Your task to perform on an android device: Clear the shopping cart on target. Add logitech g933 to the cart on target, then select checkout. Image 0: 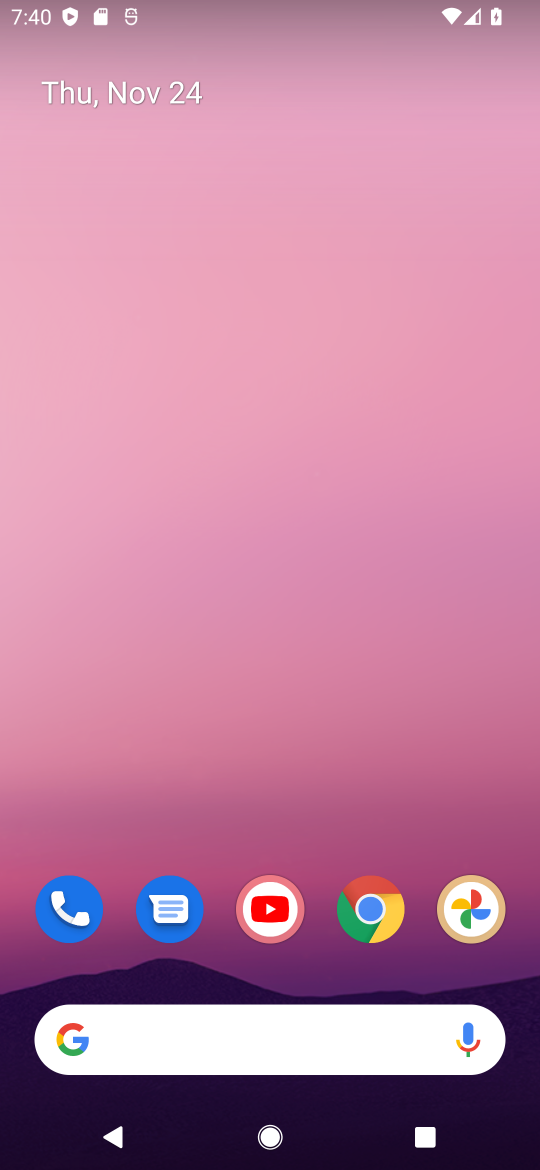
Step 0: click (364, 912)
Your task to perform on an android device: Clear the shopping cart on target. Add logitech g933 to the cart on target, then select checkout. Image 1: 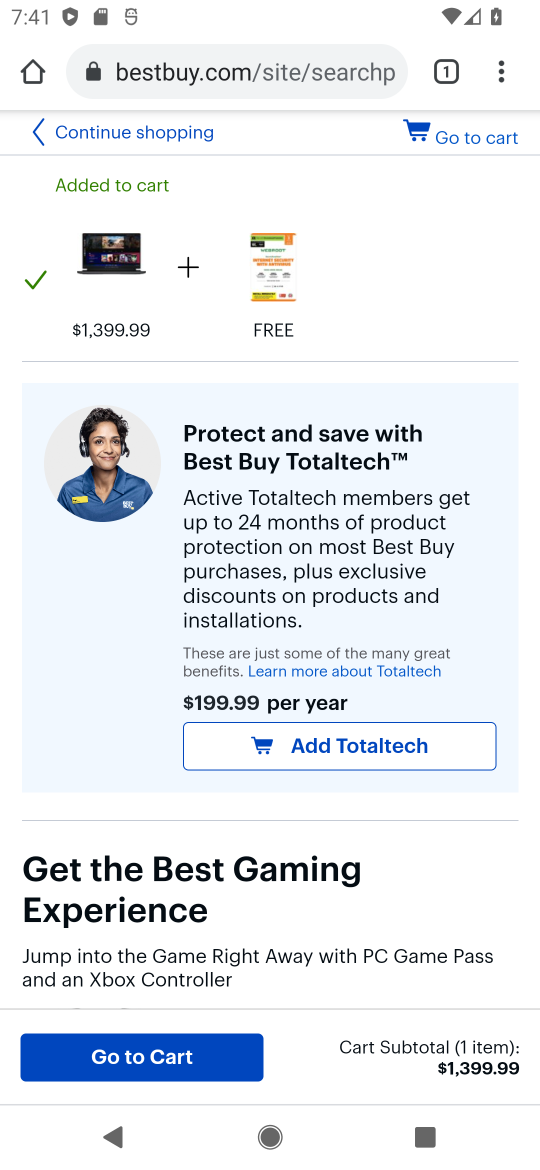
Step 1: click (298, 70)
Your task to perform on an android device: Clear the shopping cart on target. Add logitech g933 to the cart on target, then select checkout. Image 2: 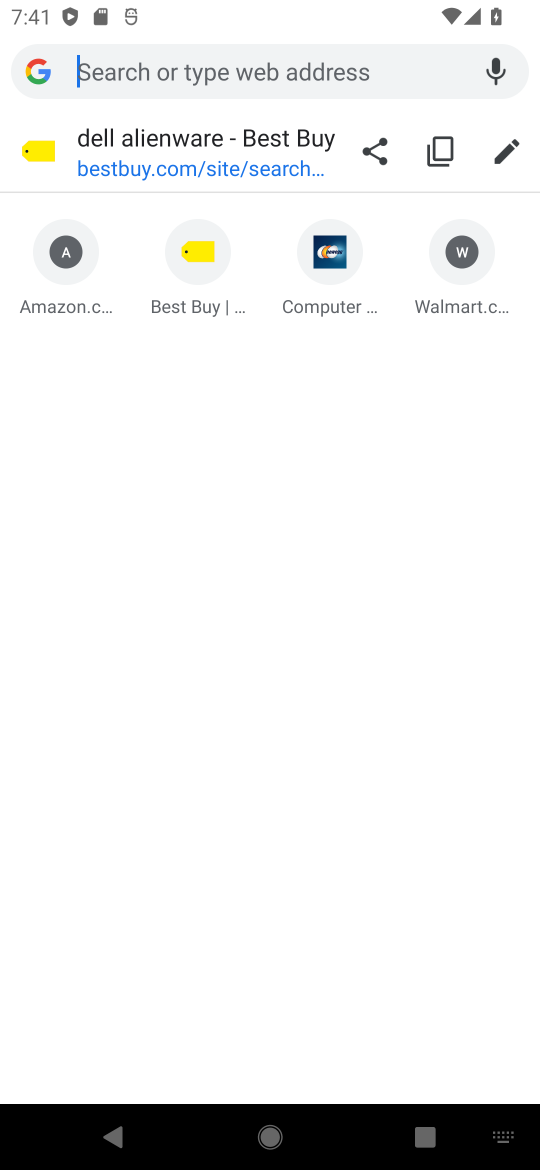
Step 2: type "target"
Your task to perform on an android device: Clear the shopping cart on target. Add logitech g933 to the cart on target, then select checkout. Image 3: 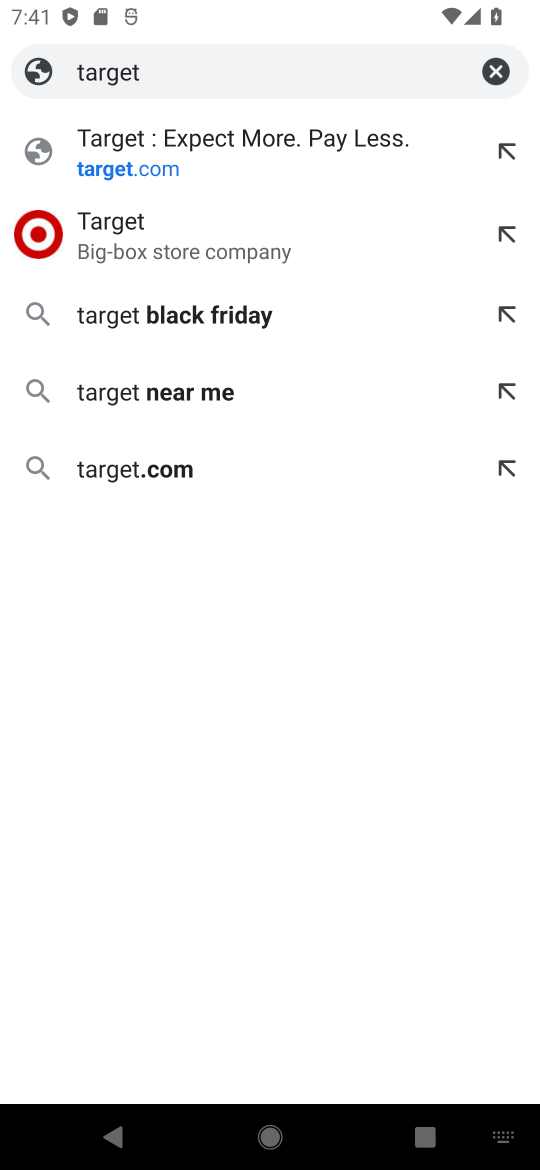
Step 3: click (260, 147)
Your task to perform on an android device: Clear the shopping cart on target. Add logitech g933 to the cart on target, then select checkout. Image 4: 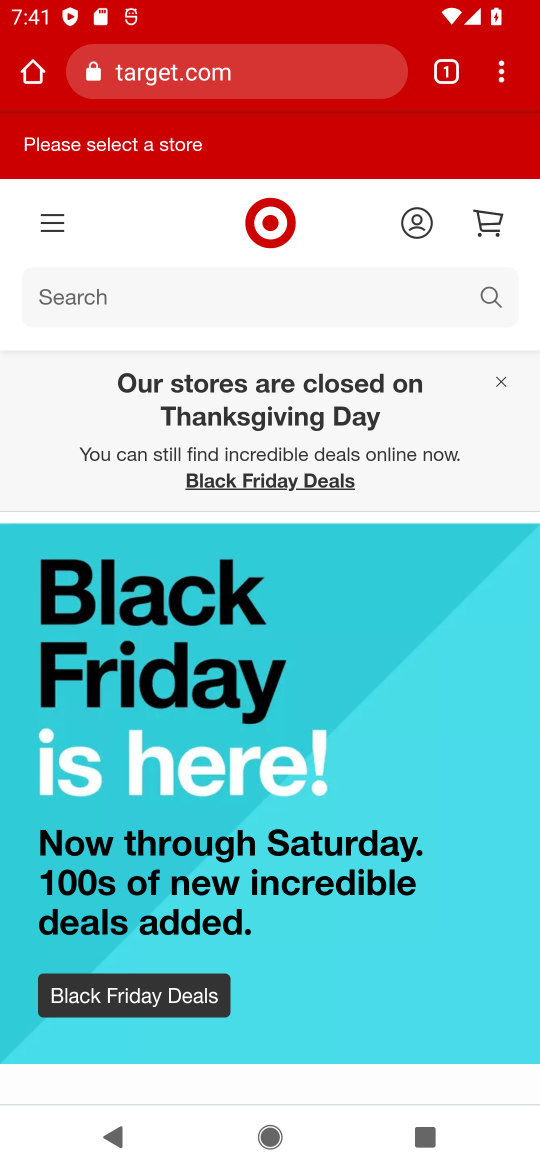
Step 4: click (353, 295)
Your task to perform on an android device: Clear the shopping cart on target. Add logitech g933 to the cart on target, then select checkout. Image 5: 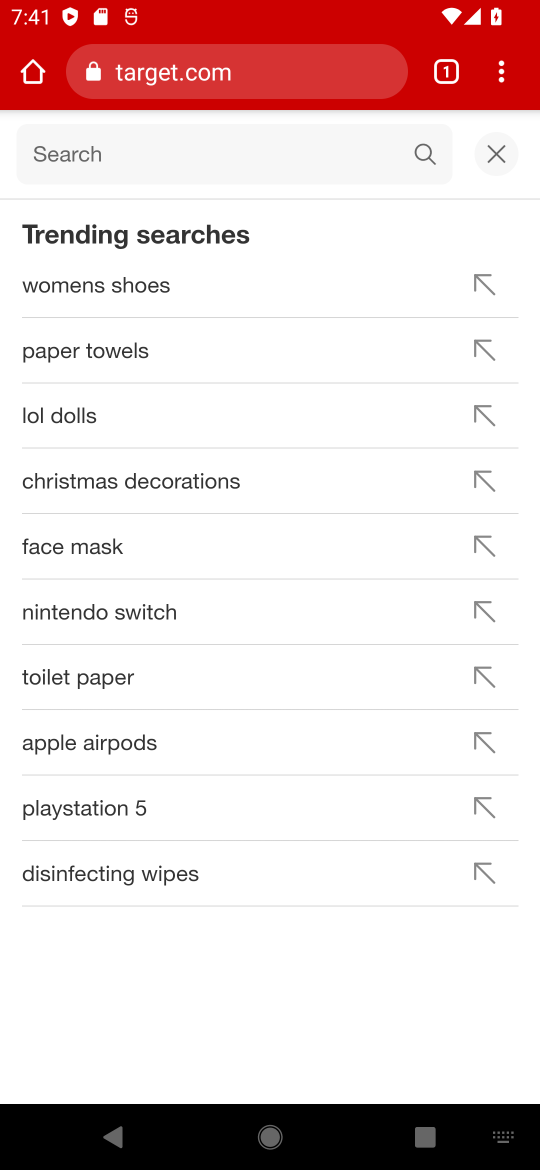
Step 5: type "logitech g933"
Your task to perform on an android device: Clear the shopping cart on target. Add logitech g933 to the cart on target, then select checkout. Image 6: 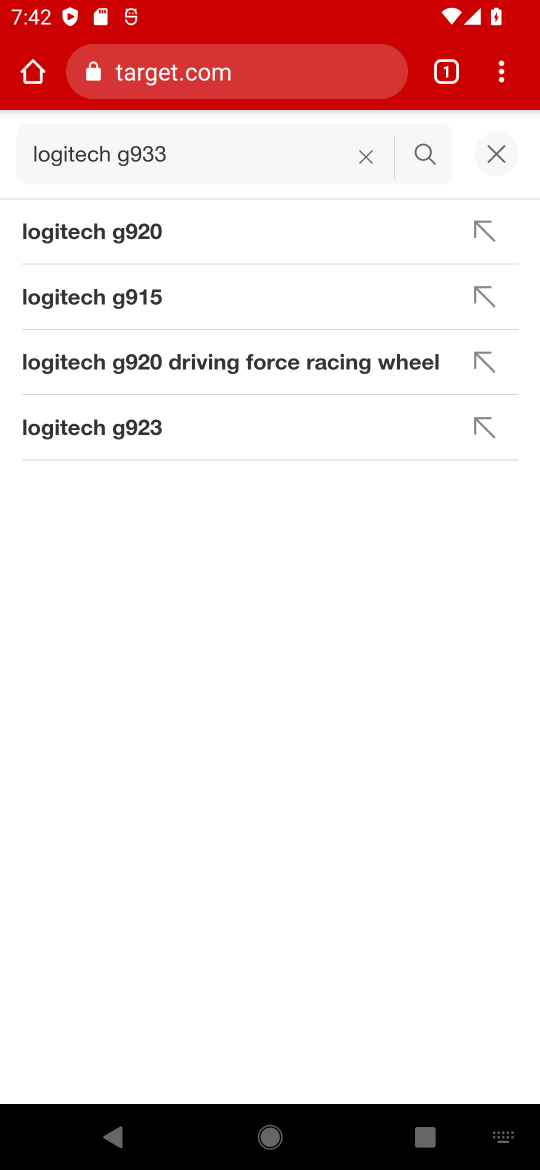
Step 6: press enter
Your task to perform on an android device: Clear the shopping cart on target. Add logitech g933 to the cart on target, then select checkout. Image 7: 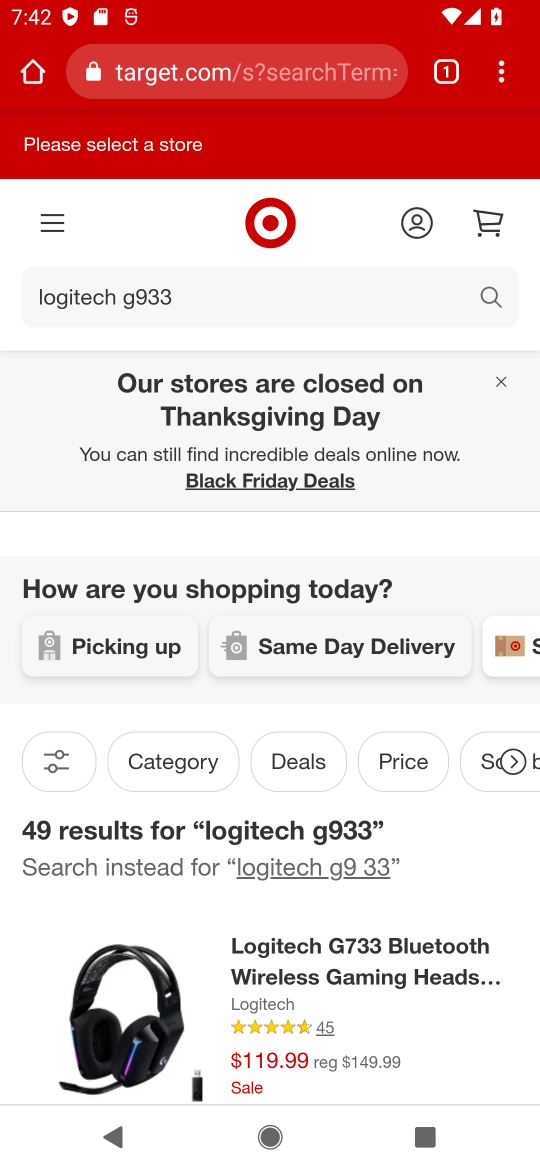
Step 7: task complete